Your task to perform on an android device: Do I have any events tomorrow? Image 0: 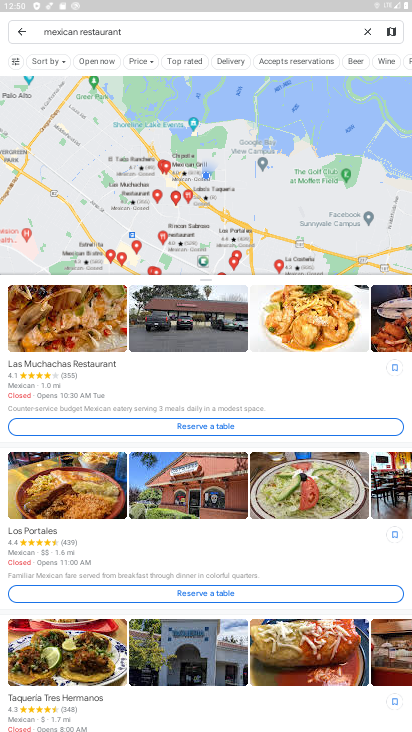
Step 0: press back button
Your task to perform on an android device: Do I have any events tomorrow? Image 1: 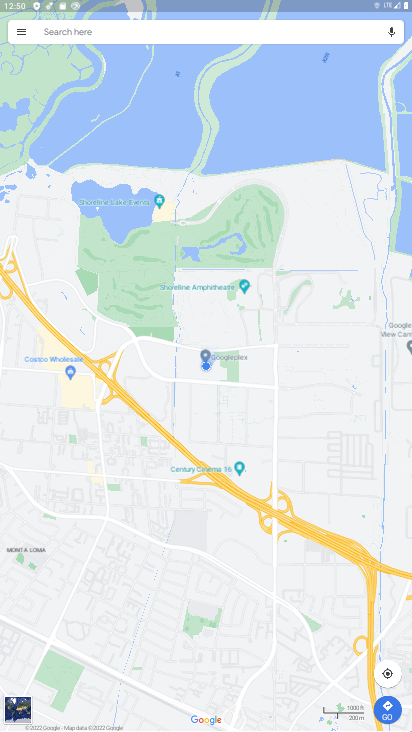
Step 1: press home button
Your task to perform on an android device: Do I have any events tomorrow? Image 2: 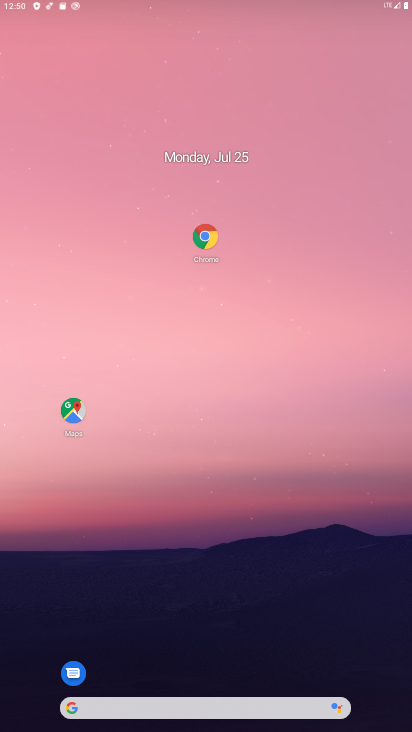
Step 2: drag from (274, 690) to (339, 3)
Your task to perform on an android device: Do I have any events tomorrow? Image 3: 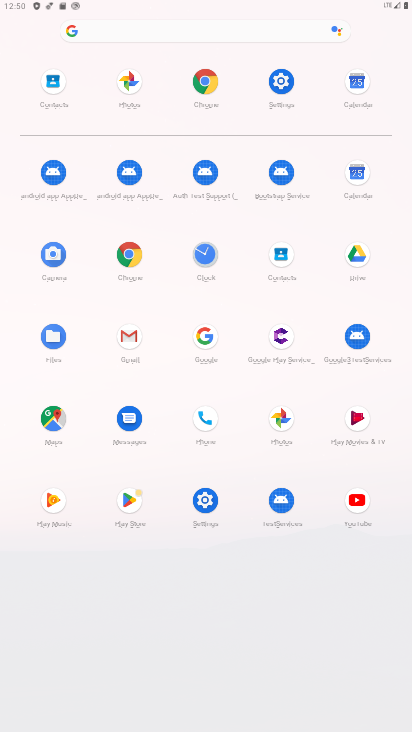
Step 3: click (370, 175)
Your task to perform on an android device: Do I have any events tomorrow? Image 4: 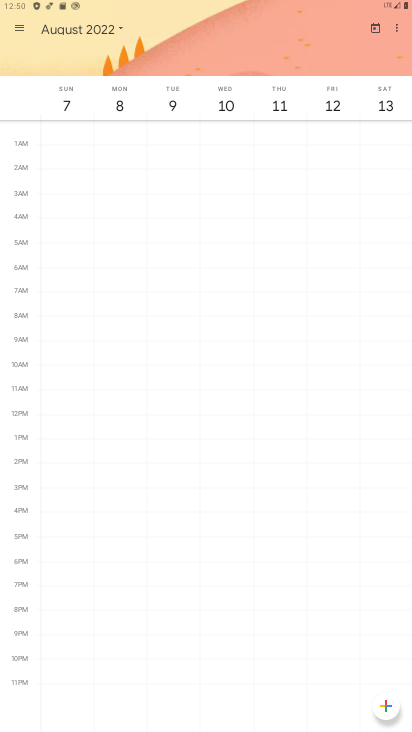
Step 4: click (114, 27)
Your task to perform on an android device: Do I have any events tomorrow? Image 5: 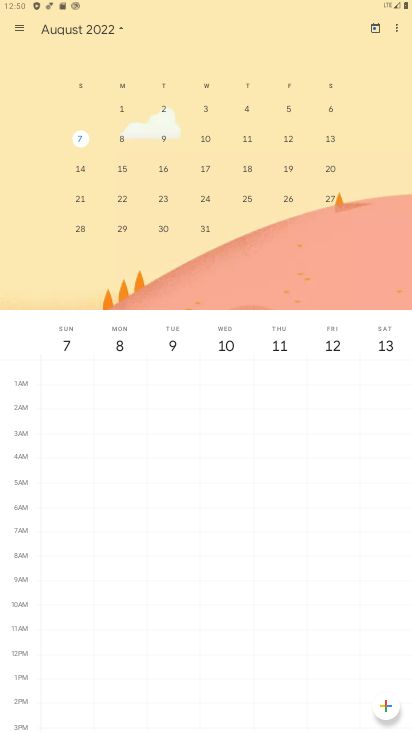
Step 5: drag from (79, 156) to (374, 197)
Your task to perform on an android device: Do I have any events tomorrow? Image 6: 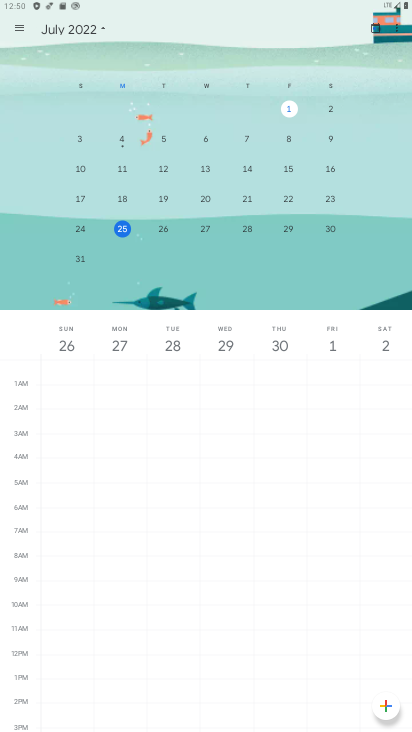
Step 6: click (162, 225)
Your task to perform on an android device: Do I have any events tomorrow? Image 7: 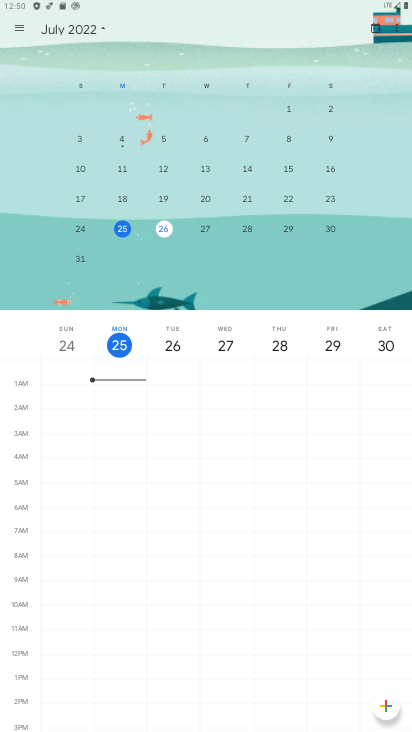
Step 7: task complete